Your task to perform on an android device: Search for seafood restaurants on Google Maps Image 0: 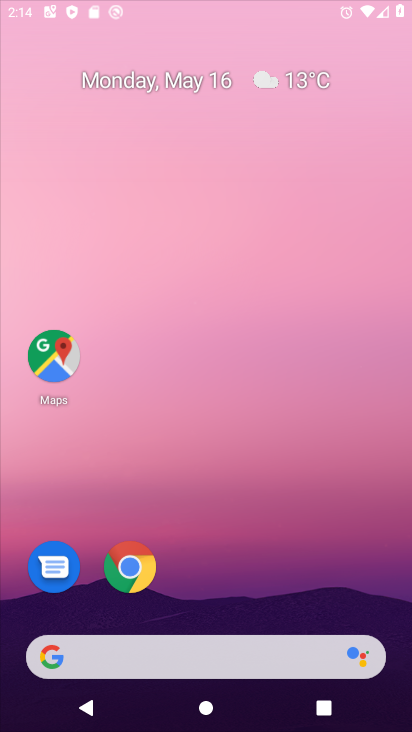
Step 0: press home button
Your task to perform on an android device: Search for seafood restaurants on Google Maps Image 1: 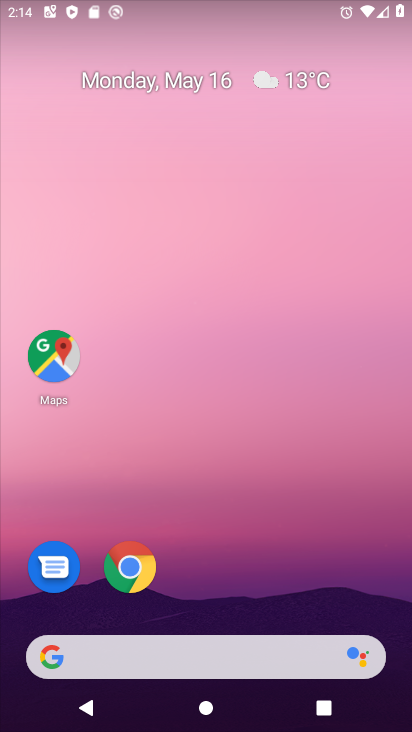
Step 1: click (54, 375)
Your task to perform on an android device: Search for seafood restaurants on Google Maps Image 2: 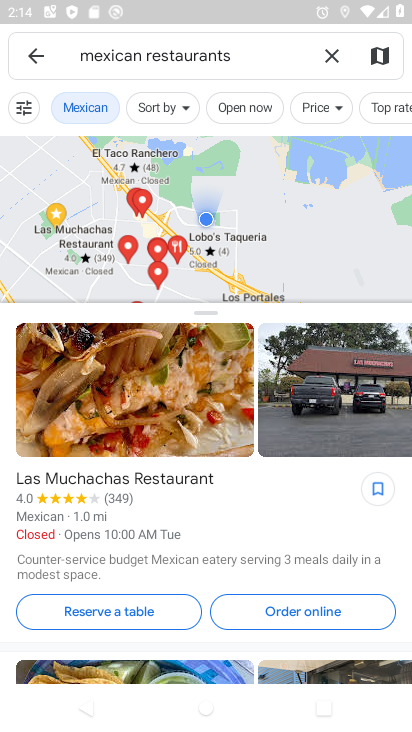
Step 2: click (328, 56)
Your task to perform on an android device: Search for seafood restaurants on Google Maps Image 3: 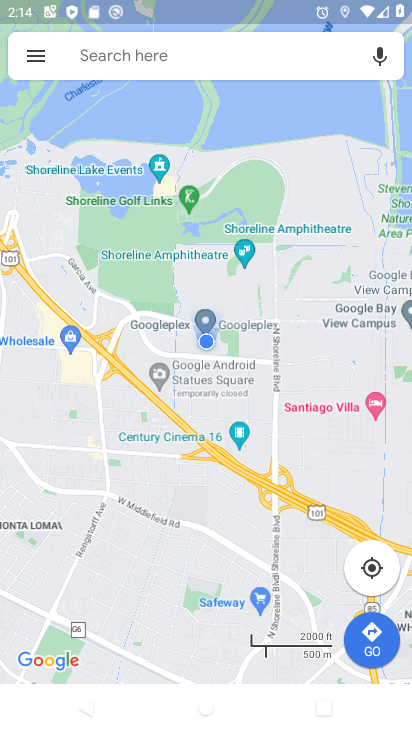
Step 3: click (244, 56)
Your task to perform on an android device: Search for seafood restaurants on Google Maps Image 4: 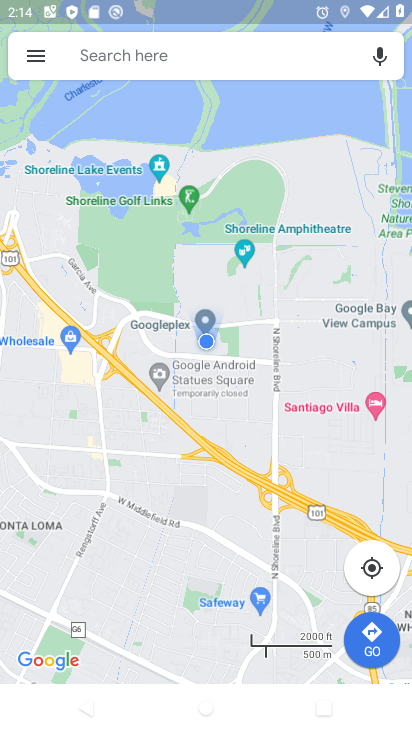
Step 4: click (244, 56)
Your task to perform on an android device: Search for seafood restaurants on Google Maps Image 5: 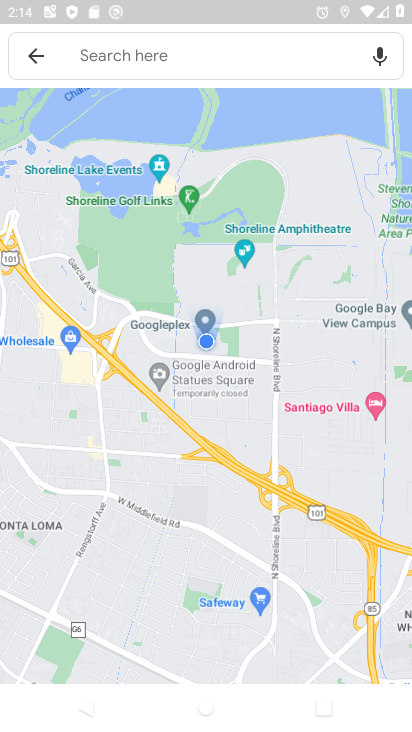
Step 5: click (244, 56)
Your task to perform on an android device: Search for seafood restaurants on Google Maps Image 6: 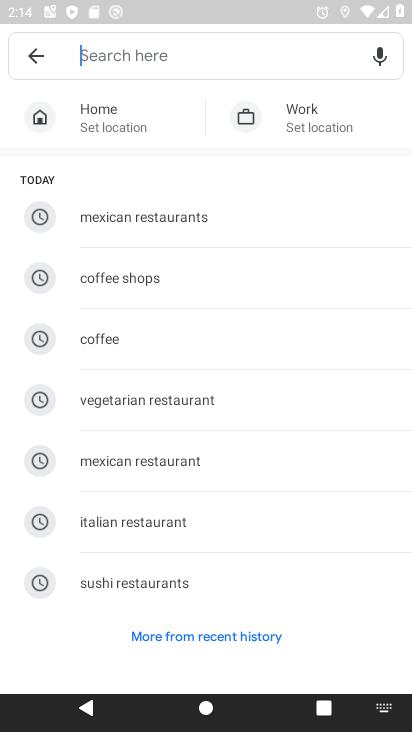
Step 6: click (244, 56)
Your task to perform on an android device: Search for seafood restaurants on Google Maps Image 7: 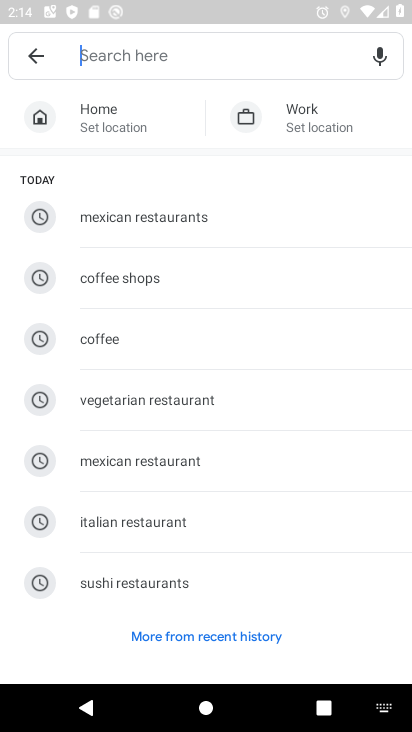
Step 7: click (244, 56)
Your task to perform on an android device: Search for seafood restaurants on Google Maps Image 8: 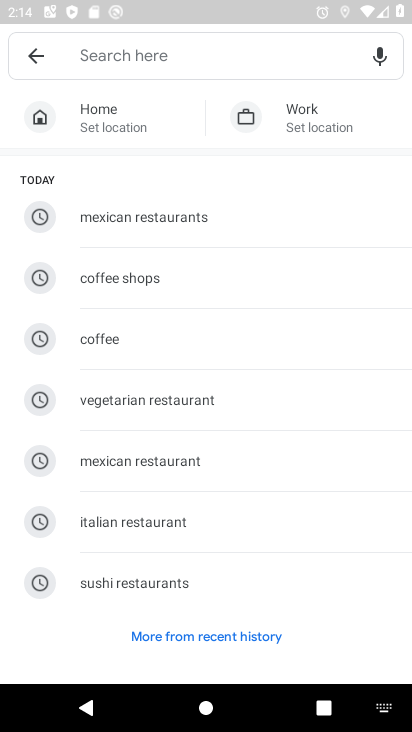
Step 8: click (244, 56)
Your task to perform on an android device: Search for seafood restaurants on Google Maps Image 9: 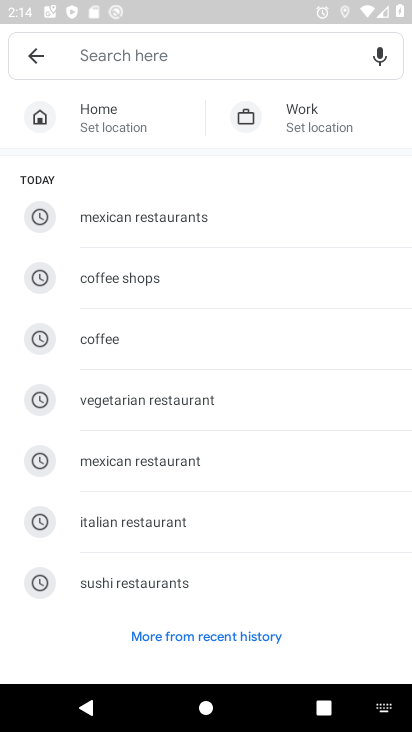
Step 9: type "seafood restaurants"
Your task to perform on an android device: Search for seafood restaurants on Google Maps Image 10: 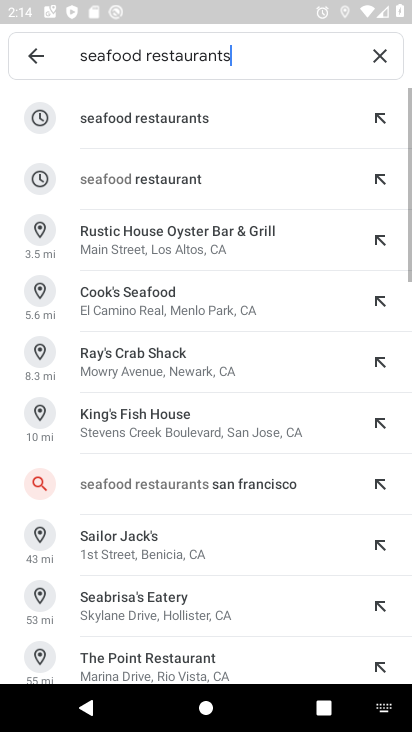
Step 10: click (146, 114)
Your task to perform on an android device: Search for seafood restaurants on Google Maps Image 11: 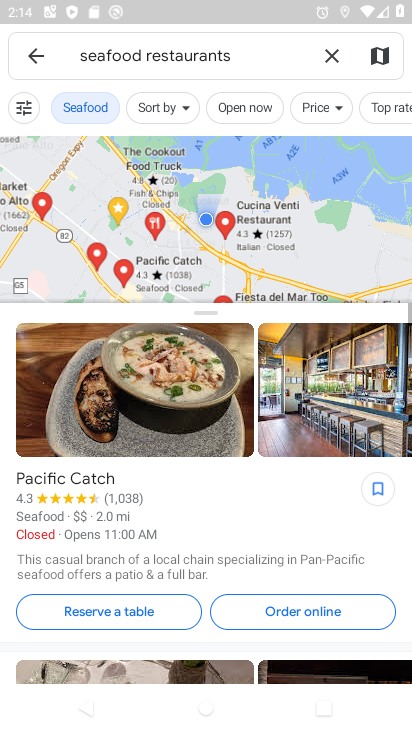
Step 11: task complete